Your task to perform on an android device: Open wifi settings Image 0: 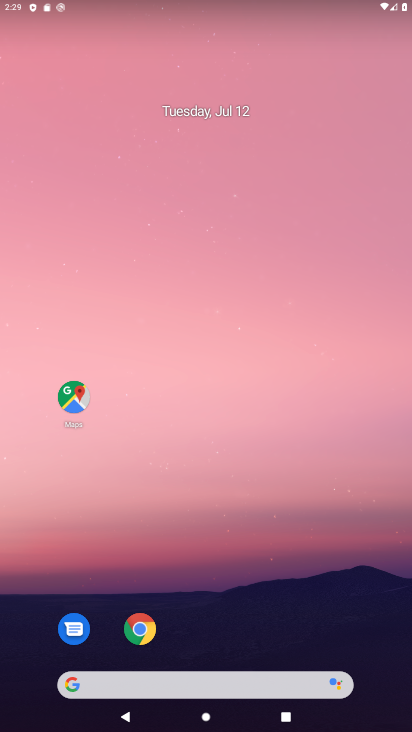
Step 0: drag from (219, 610) to (215, 241)
Your task to perform on an android device: Open wifi settings Image 1: 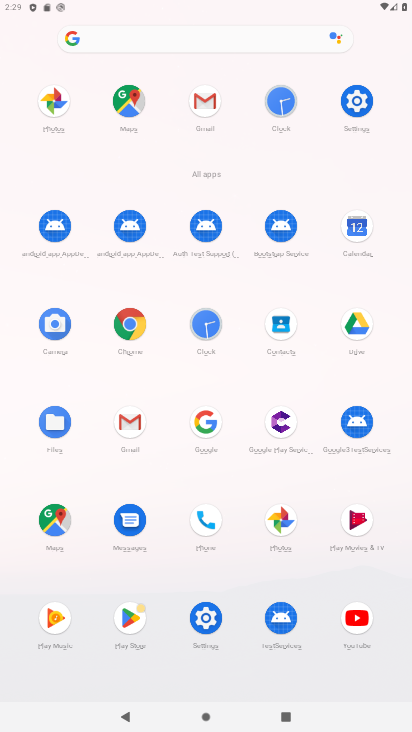
Step 1: click (362, 98)
Your task to perform on an android device: Open wifi settings Image 2: 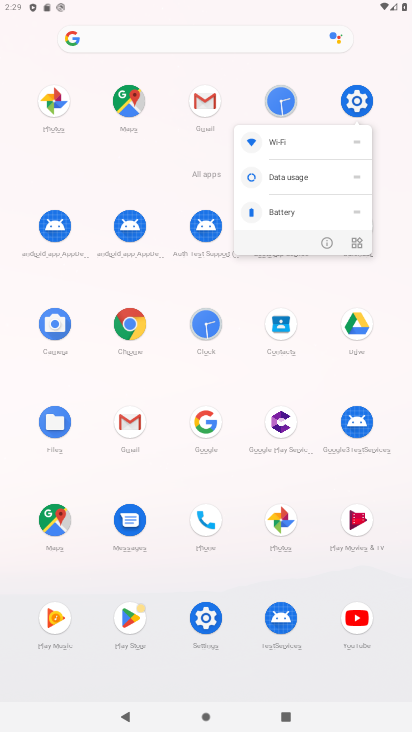
Step 2: click (358, 103)
Your task to perform on an android device: Open wifi settings Image 3: 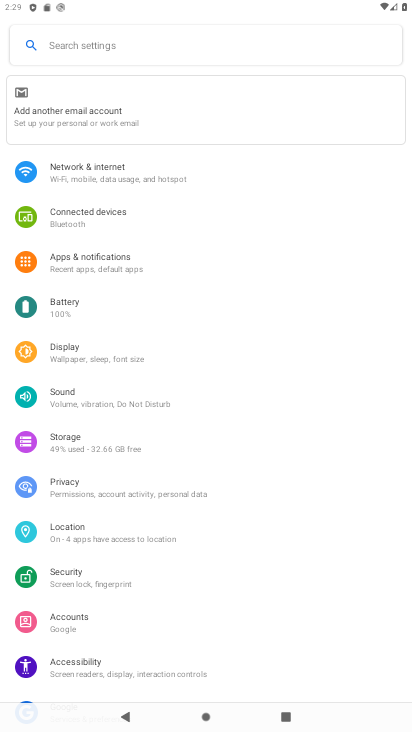
Step 3: click (88, 171)
Your task to perform on an android device: Open wifi settings Image 4: 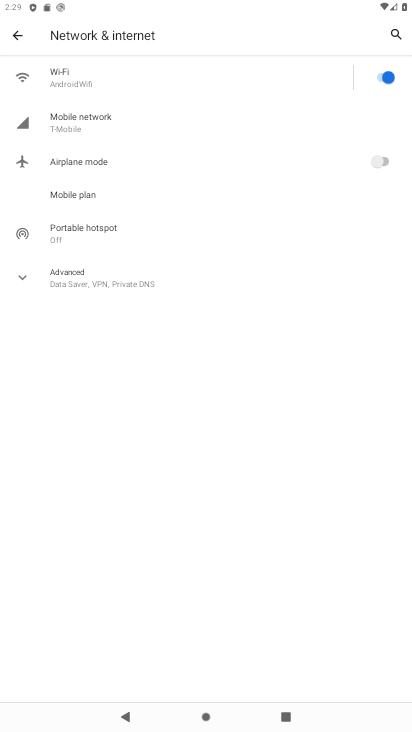
Step 4: click (107, 65)
Your task to perform on an android device: Open wifi settings Image 5: 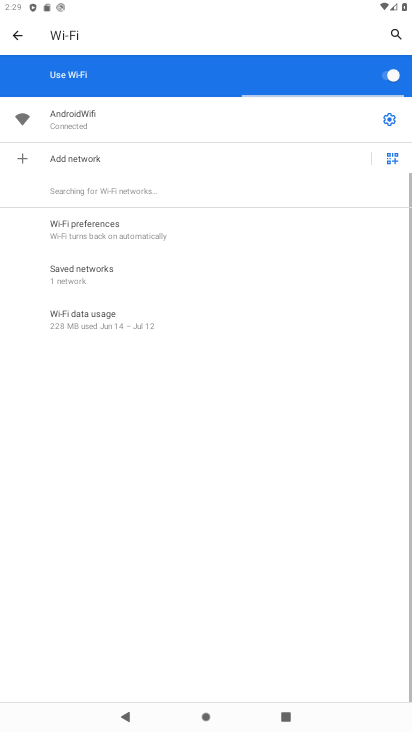
Step 5: click (225, 121)
Your task to perform on an android device: Open wifi settings Image 6: 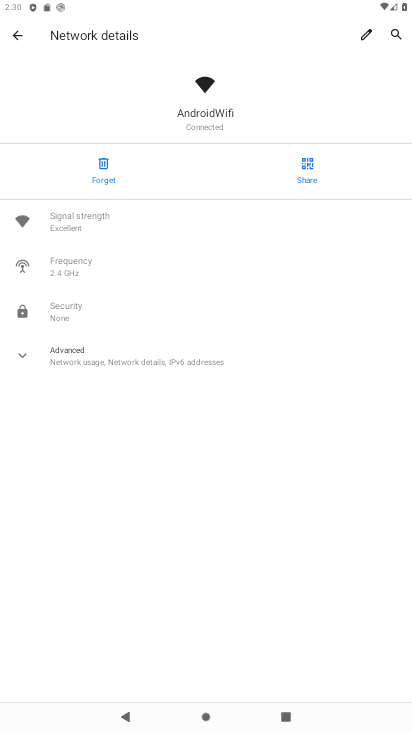
Step 6: task complete